Your task to perform on an android device: Open eBay Image 0: 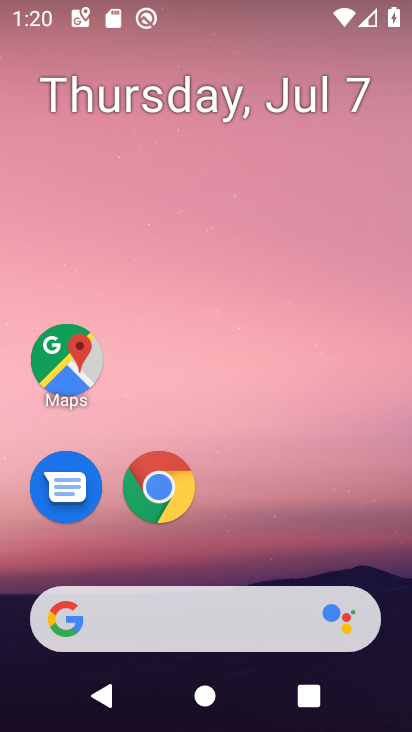
Step 0: drag from (367, 547) to (344, 87)
Your task to perform on an android device: Open eBay Image 1: 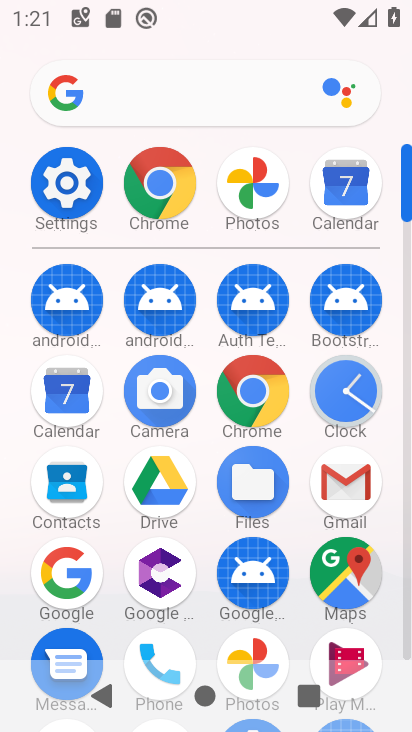
Step 1: click (238, 411)
Your task to perform on an android device: Open eBay Image 2: 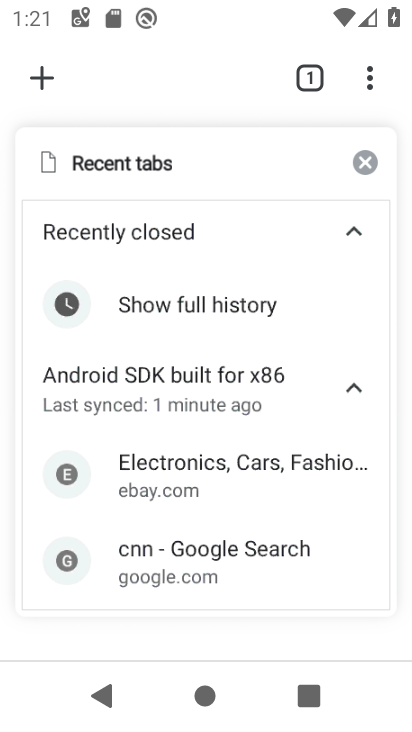
Step 2: press back button
Your task to perform on an android device: Open eBay Image 3: 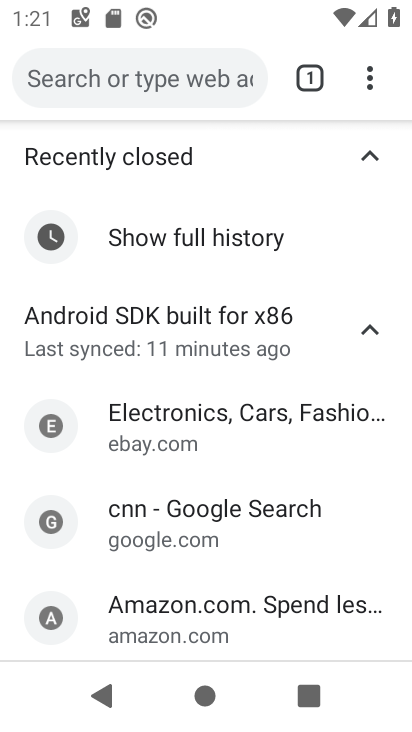
Step 3: click (201, 95)
Your task to perform on an android device: Open eBay Image 4: 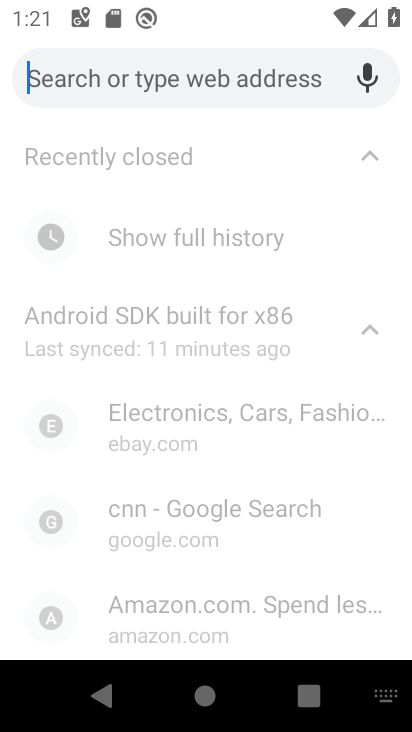
Step 4: type "ebay "
Your task to perform on an android device: Open eBay Image 5: 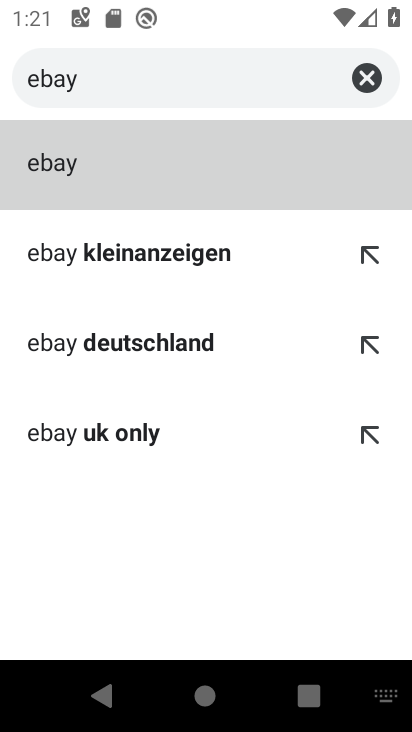
Step 5: click (183, 172)
Your task to perform on an android device: Open eBay Image 6: 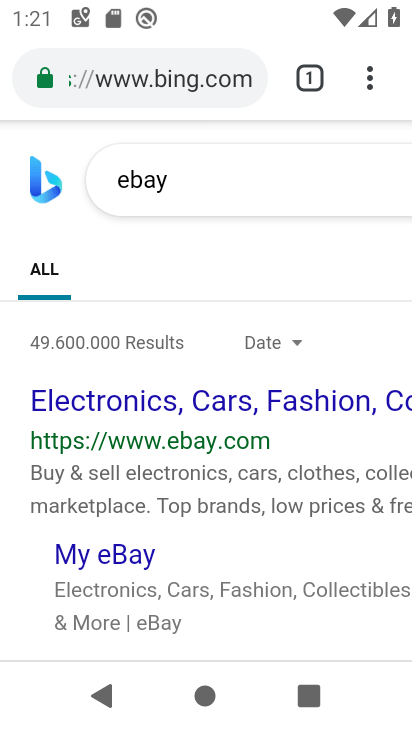
Step 6: task complete